Your task to perform on an android device: change the clock display to show seconds Image 0: 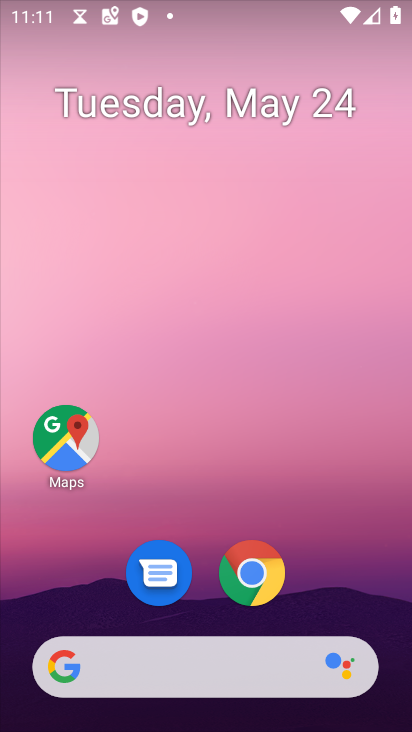
Step 0: drag from (79, 624) to (180, 201)
Your task to perform on an android device: change the clock display to show seconds Image 1: 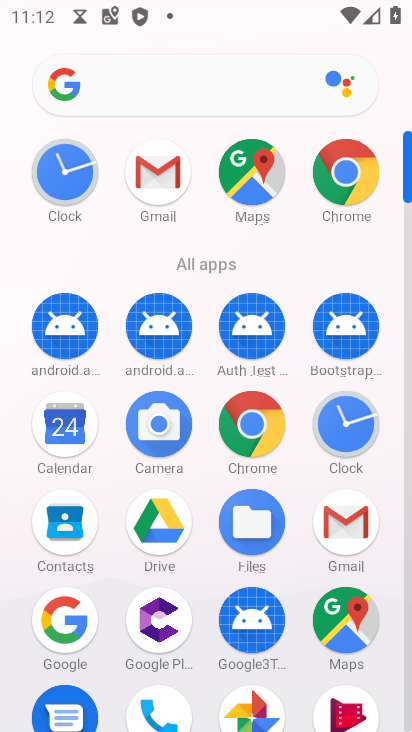
Step 1: click (366, 419)
Your task to perform on an android device: change the clock display to show seconds Image 2: 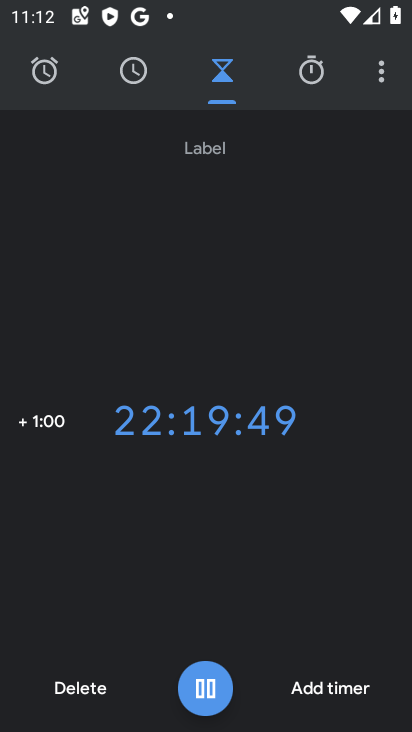
Step 2: click (394, 86)
Your task to perform on an android device: change the clock display to show seconds Image 3: 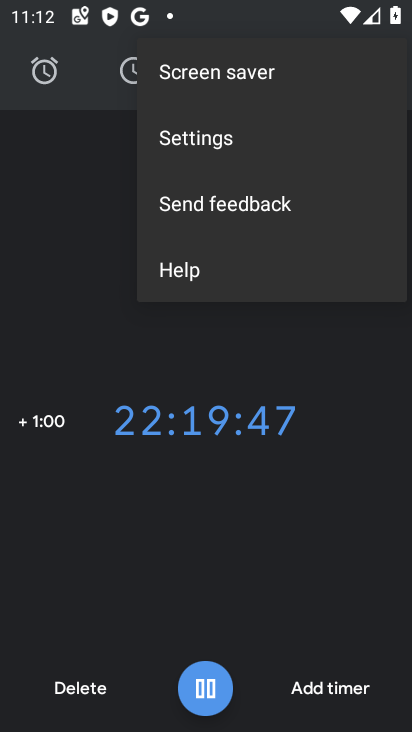
Step 3: click (308, 134)
Your task to perform on an android device: change the clock display to show seconds Image 4: 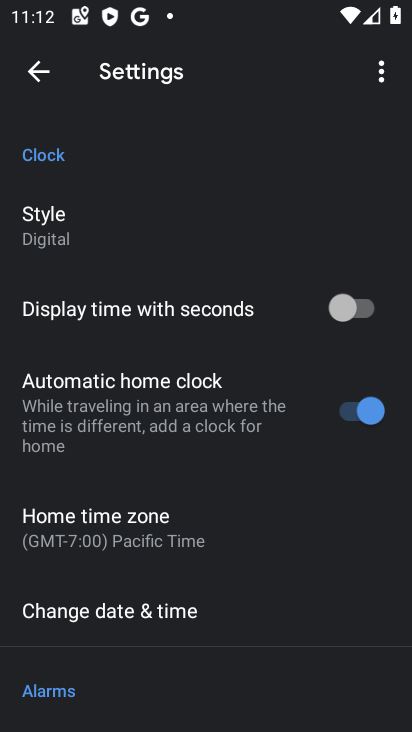
Step 4: click (384, 309)
Your task to perform on an android device: change the clock display to show seconds Image 5: 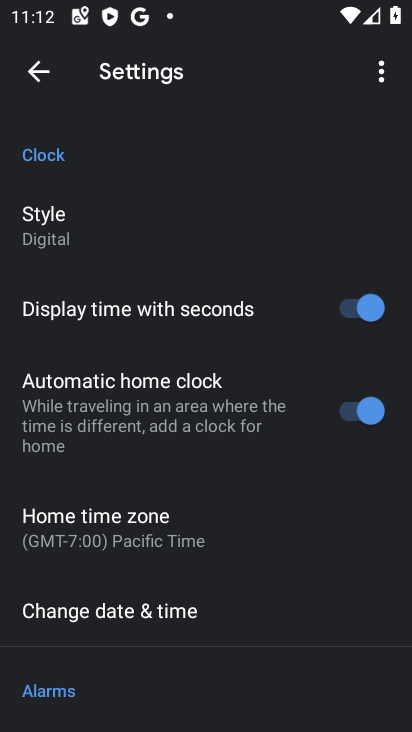
Step 5: task complete